Your task to perform on an android device: clear all cookies in the chrome app Image 0: 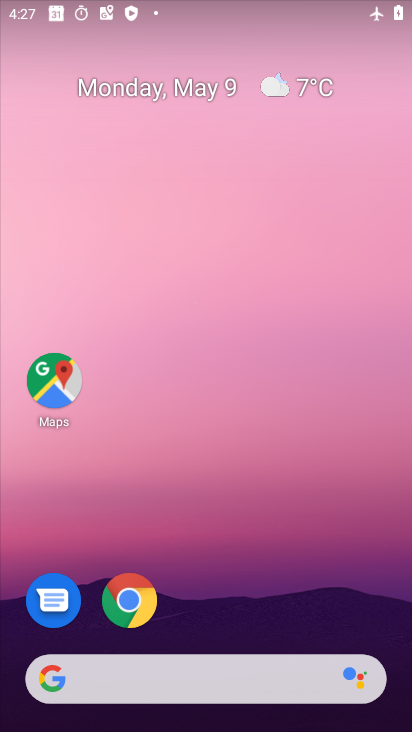
Step 0: click (117, 602)
Your task to perform on an android device: clear all cookies in the chrome app Image 1: 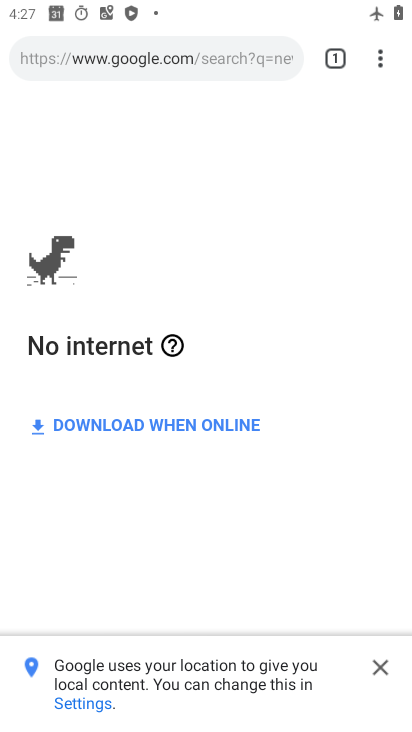
Step 1: drag from (379, 51) to (188, 643)
Your task to perform on an android device: clear all cookies in the chrome app Image 2: 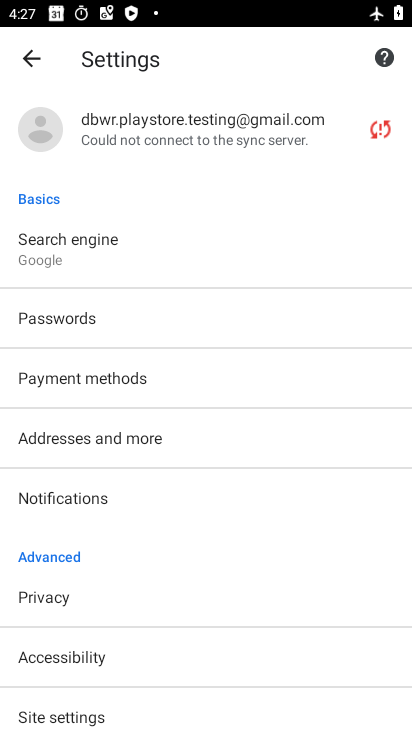
Step 2: click (37, 52)
Your task to perform on an android device: clear all cookies in the chrome app Image 3: 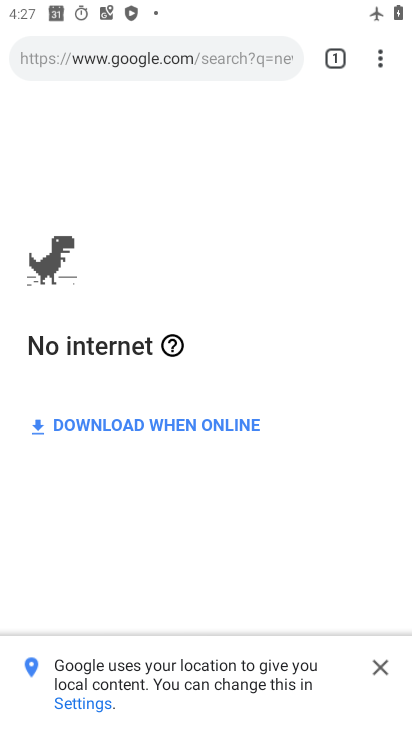
Step 3: drag from (388, 56) to (216, 323)
Your task to perform on an android device: clear all cookies in the chrome app Image 4: 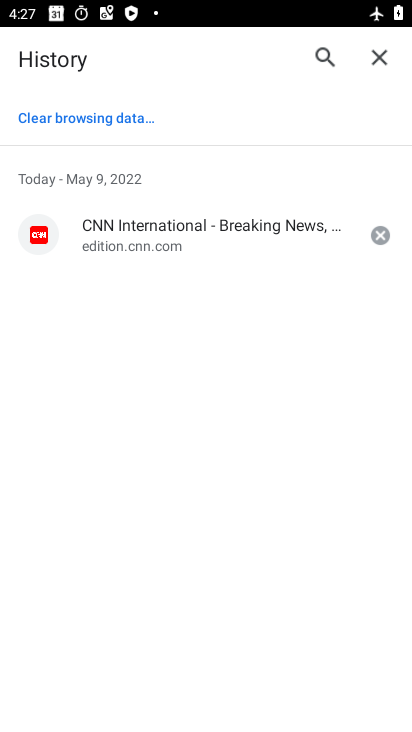
Step 4: click (100, 120)
Your task to perform on an android device: clear all cookies in the chrome app Image 5: 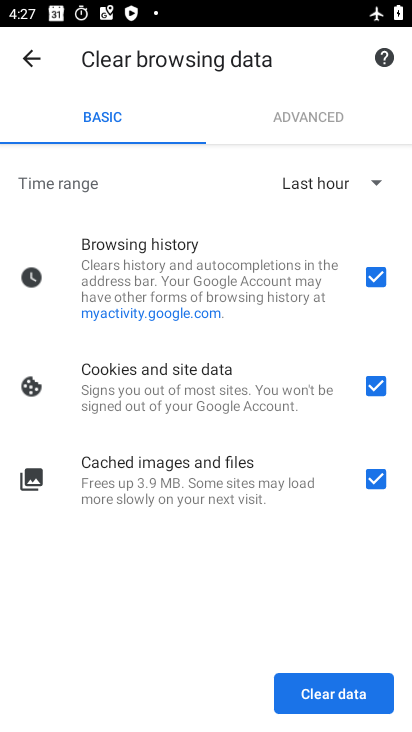
Step 5: click (335, 178)
Your task to perform on an android device: clear all cookies in the chrome app Image 6: 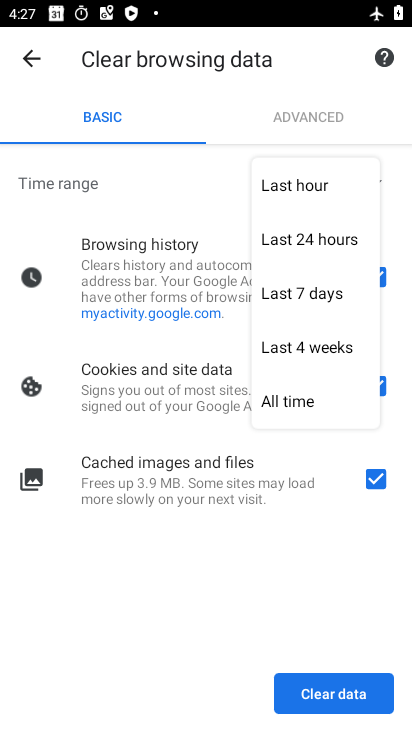
Step 6: click (304, 398)
Your task to perform on an android device: clear all cookies in the chrome app Image 7: 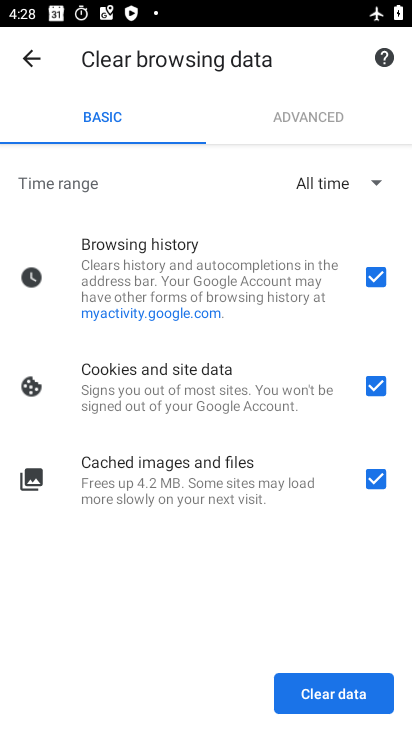
Step 7: click (346, 697)
Your task to perform on an android device: clear all cookies in the chrome app Image 8: 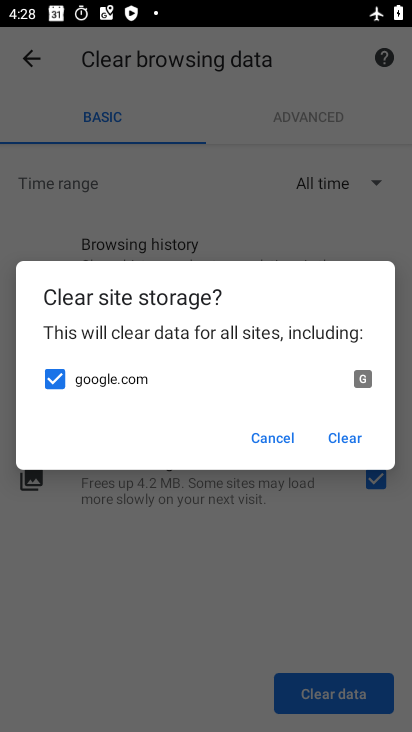
Step 8: click (345, 433)
Your task to perform on an android device: clear all cookies in the chrome app Image 9: 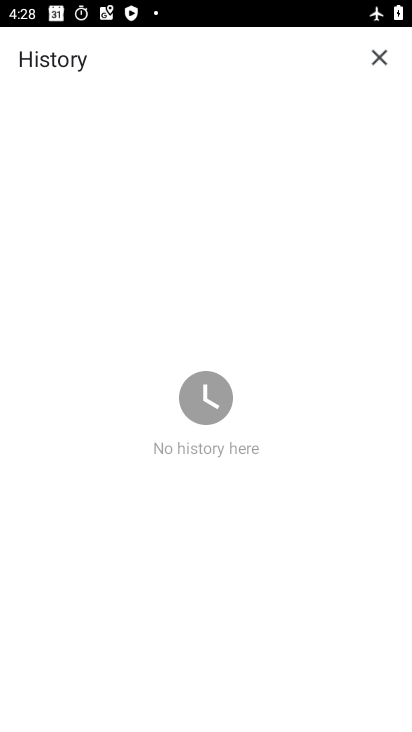
Step 9: task complete